Your task to perform on an android device: View the shopping cart on newegg. Add "apple airpods" to the cart on newegg, then select checkout. Image 0: 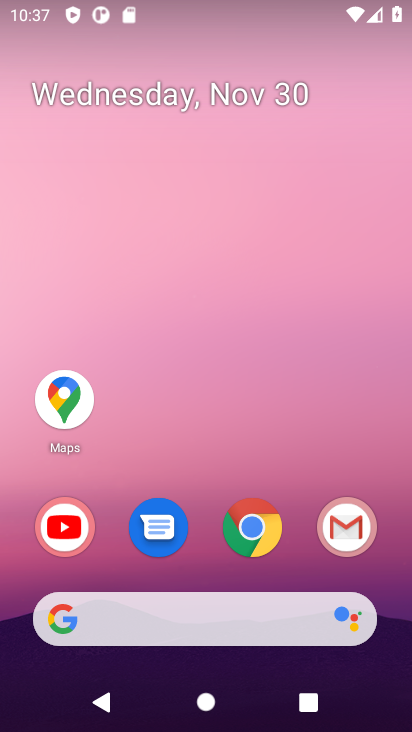
Step 0: click (250, 536)
Your task to perform on an android device: View the shopping cart on newegg. Add "apple airpods" to the cart on newegg, then select checkout. Image 1: 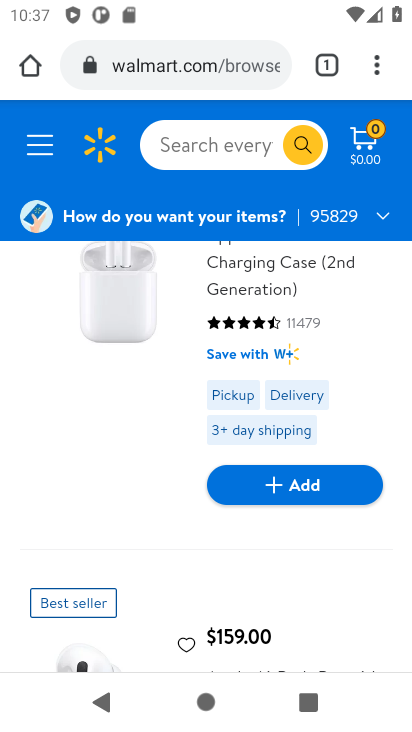
Step 1: click (177, 68)
Your task to perform on an android device: View the shopping cart on newegg. Add "apple airpods" to the cart on newegg, then select checkout. Image 2: 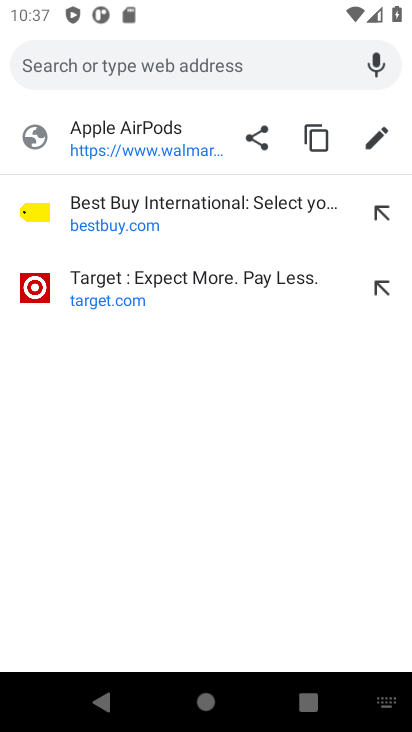
Step 2: type "newegg.com"
Your task to perform on an android device: View the shopping cart on newegg. Add "apple airpods" to the cart on newegg, then select checkout. Image 3: 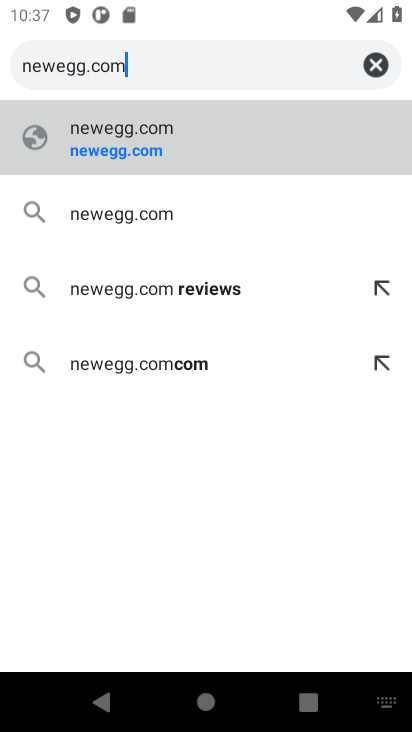
Step 3: click (112, 143)
Your task to perform on an android device: View the shopping cart on newegg. Add "apple airpods" to the cart on newegg, then select checkout. Image 4: 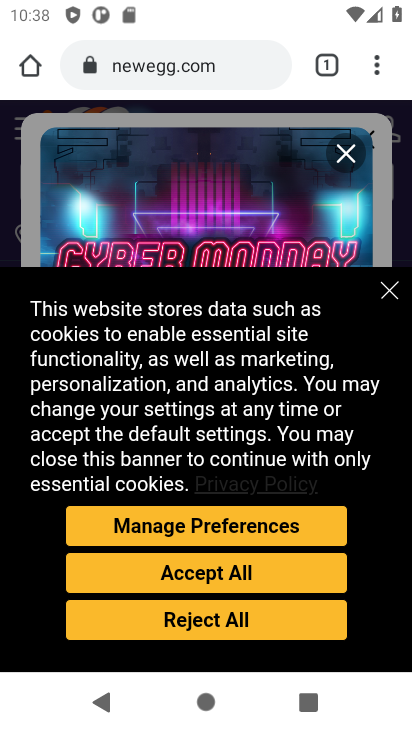
Step 4: click (236, 165)
Your task to perform on an android device: View the shopping cart on newegg. Add "apple airpods" to the cart on newegg, then select checkout. Image 5: 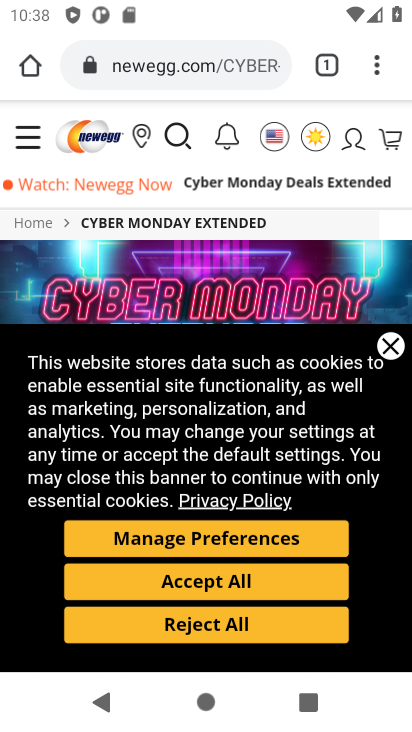
Step 5: click (386, 351)
Your task to perform on an android device: View the shopping cart on newegg. Add "apple airpods" to the cart on newegg, then select checkout. Image 6: 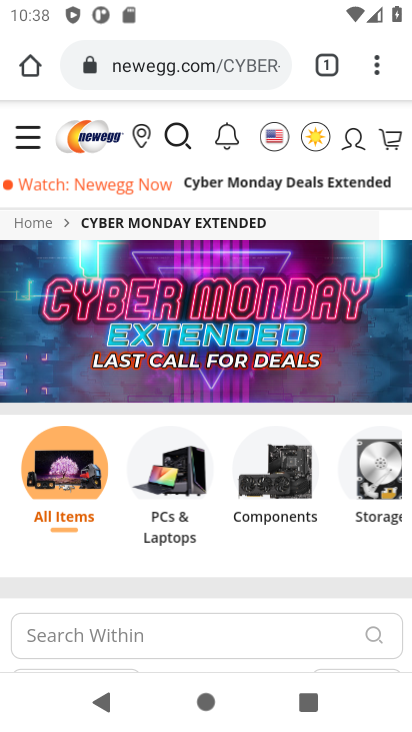
Step 6: click (386, 146)
Your task to perform on an android device: View the shopping cart on newegg. Add "apple airpods" to the cart on newegg, then select checkout. Image 7: 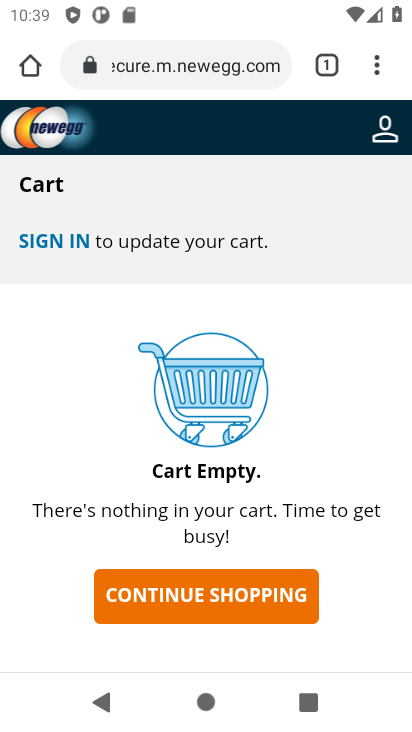
Step 7: click (190, 585)
Your task to perform on an android device: View the shopping cart on newegg. Add "apple airpods" to the cart on newegg, then select checkout. Image 8: 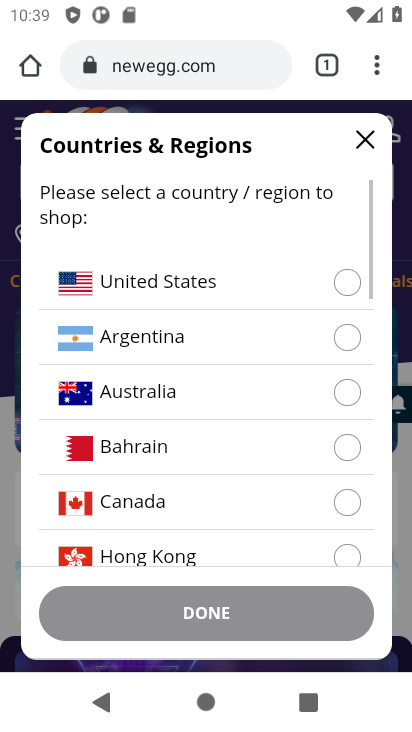
Step 8: click (105, 277)
Your task to perform on an android device: View the shopping cart on newegg. Add "apple airpods" to the cart on newegg, then select checkout. Image 9: 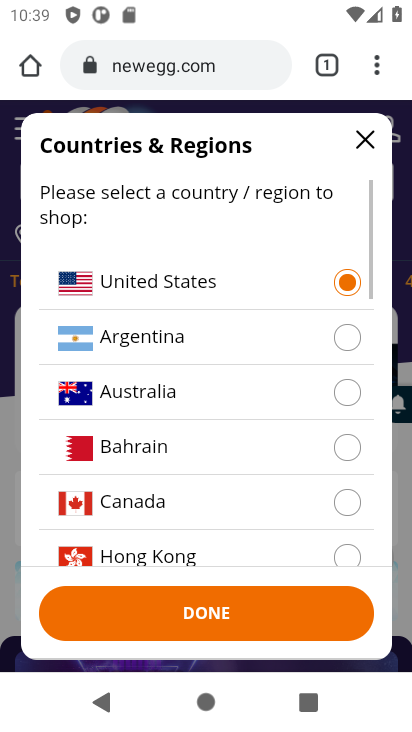
Step 9: click (203, 604)
Your task to perform on an android device: View the shopping cart on newegg. Add "apple airpods" to the cart on newegg, then select checkout. Image 10: 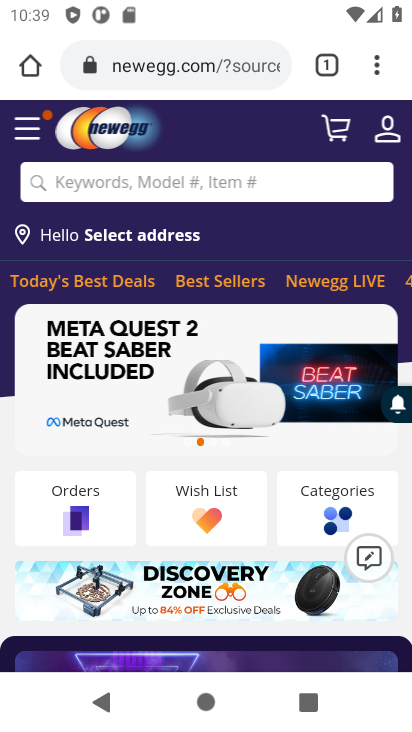
Step 10: click (142, 189)
Your task to perform on an android device: View the shopping cart on newegg. Add "apple airpods" to the cart on newegg, then select checkout. Image 11: 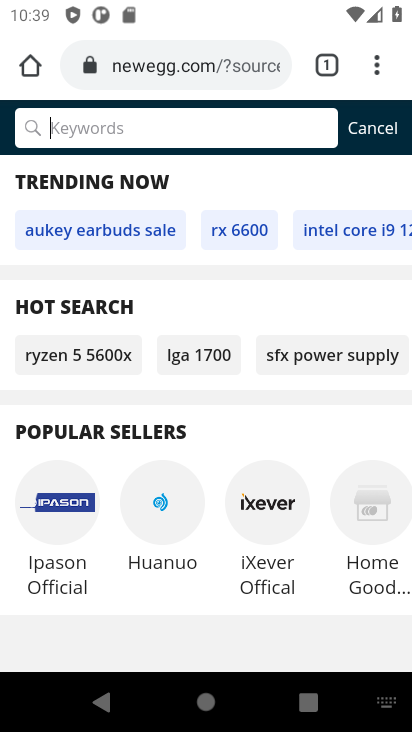
Step 11: type "apple airpods"
Your task to perform on an android device: View the shopping cart on newegg. Add "apple airpods" to the cart on newegg, then select checkout. Image 12: 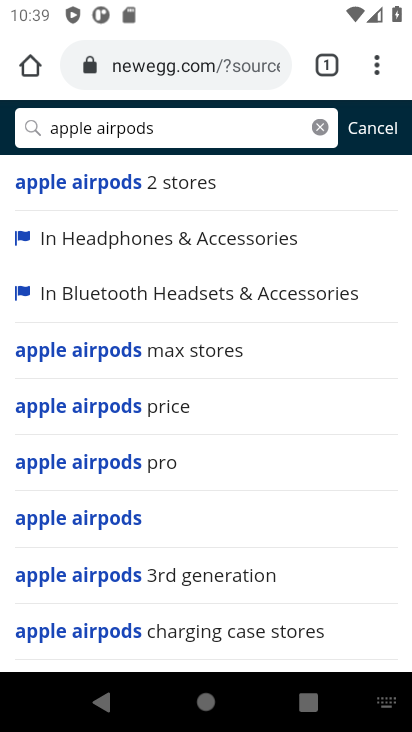
Step 12: click (108, 511)
Your task to perform on an android device: View the shopping cart on newegg. Add "apple airpods" to the cart on newegg, then select checkout. Image 13: 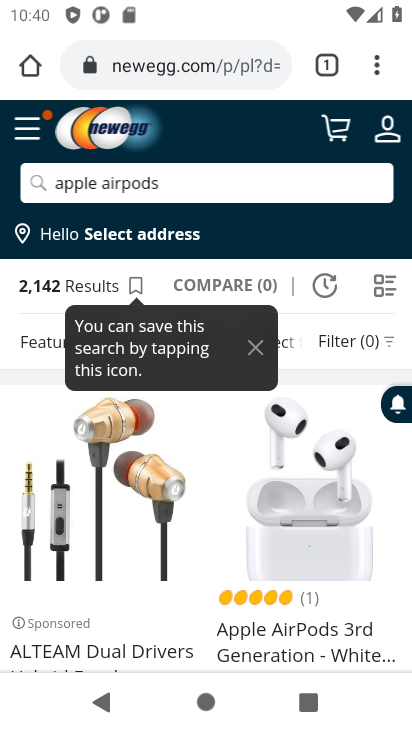
Step 13: drag from (138, 549) to (147, 344)
Your task to perform on an android device: View the shopping cart on newegg. Add "apple airpods" to the cart on newegg, then select checkout. Image 14: 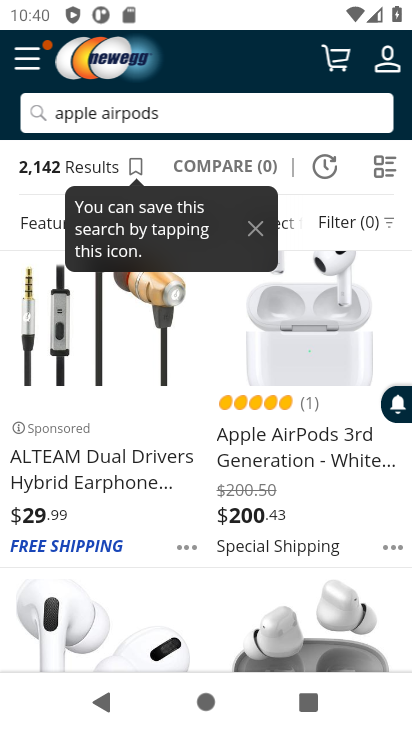
Step 14: click (313, 332)
Your task to perform on an android device: View the shopping cart on newegg. Add "apple airpods" to the cart on newegg, then select checkout. Image 15: 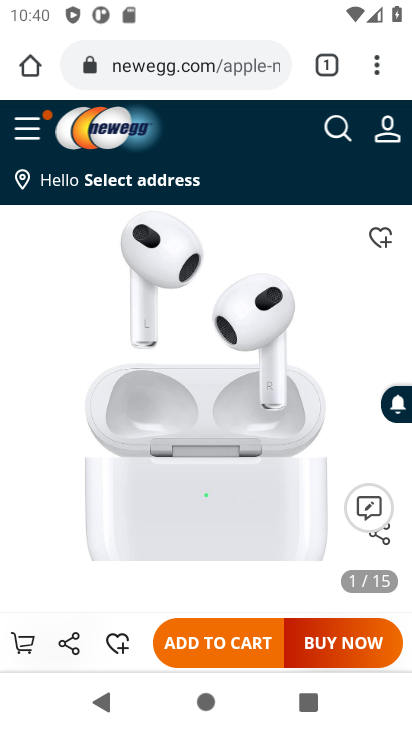
Step 15: click (230, 645)
Your task to perform on an android device: View the shopping cart on newegg. Add "apple airpods" to the cart on newegg, then select checkout. Image 16: 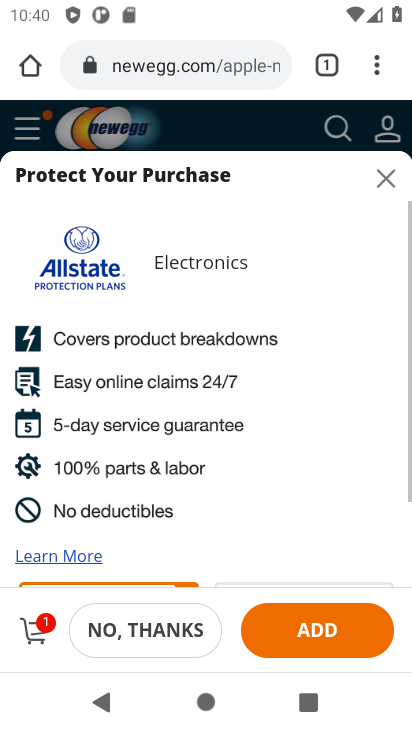
Step 16: click (31, 634)
Your task to perform on an android device: View the shopping cart on newegg. Add "apple airpods" to the cart on newegg, then select checkout. Image 17: 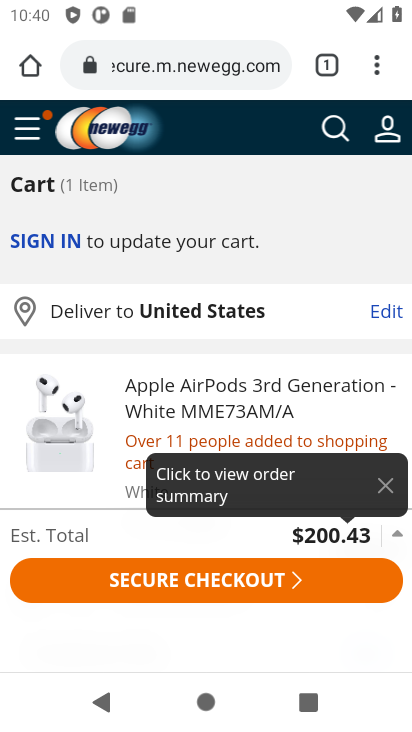
Step 17: click (199, 582)
Your task to perform on an android device: View the shopping cart on newegg. Add "apple airpods" to the cart on newegg, then select checkout. Image 18: 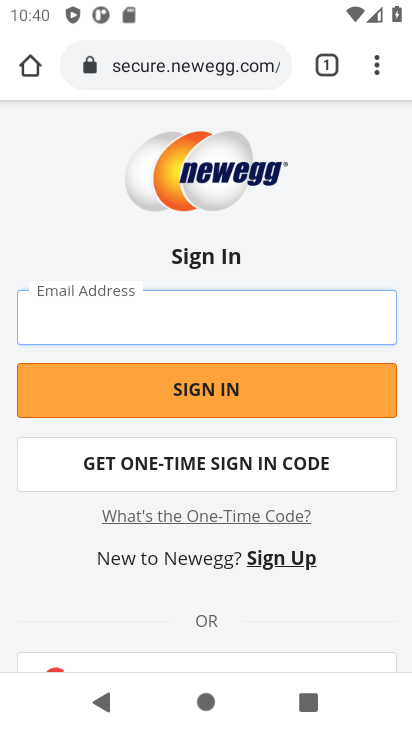
Step 18: task complete